Your task to perform on an android device: Open Chrome and go to settings Image 0: 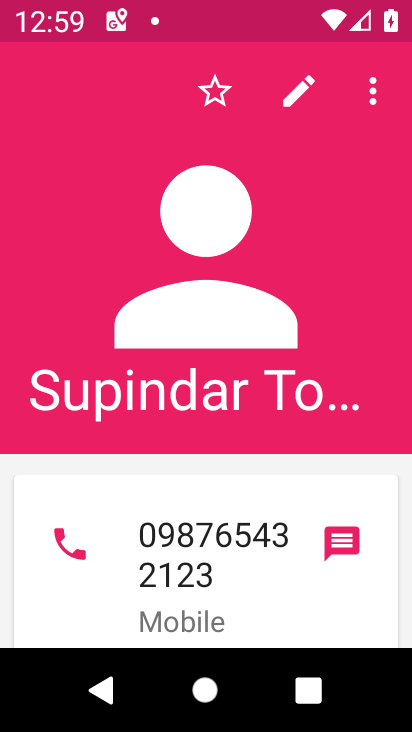
Step 0: press home button
Your task to perform on an android device: Open Chrome and go to settings Image 1: 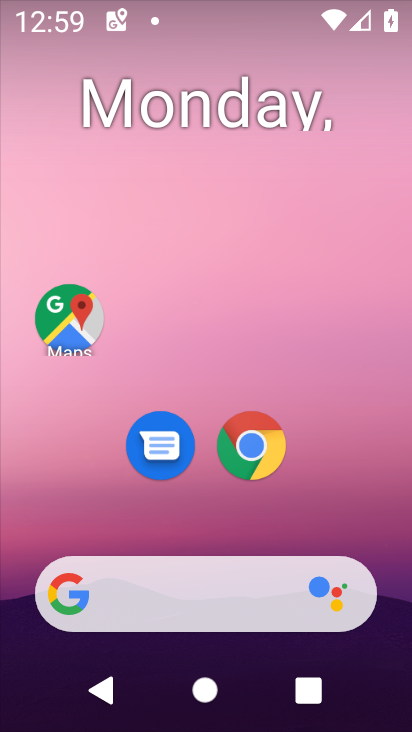
Step 1: click (250, 446)
Your task to perform on an android device: Open Chrome and go to settings Image 2: 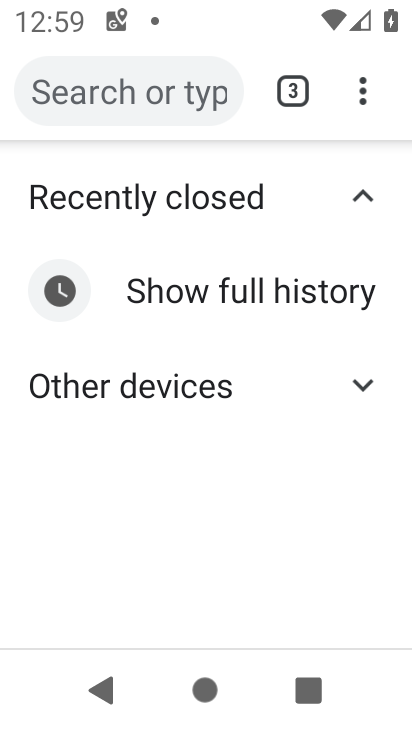
Step 2: click (364, 96)
Your task to perform on an android device: Open Chrome and go to settings Image 3: 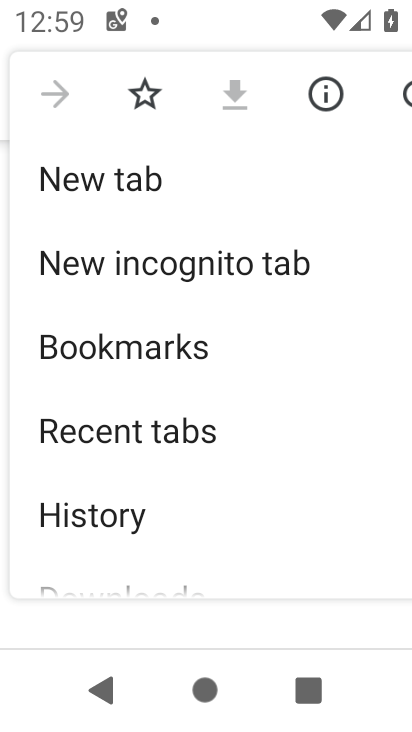
Step 3: drag from (147, 365) to (221, 247)
Your task to perform on an android device: Open Chrome and go to settings Image 4: 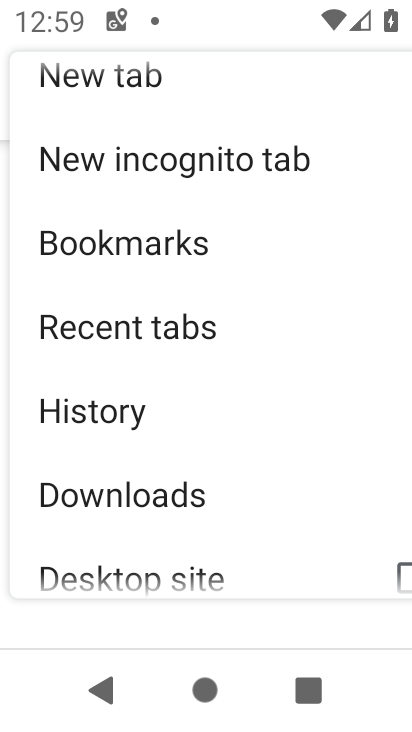
Step 4: drag from (140, 365) to (190, 295)
Your task to perform on an android device: Open Chrome and go to settings Image 5: 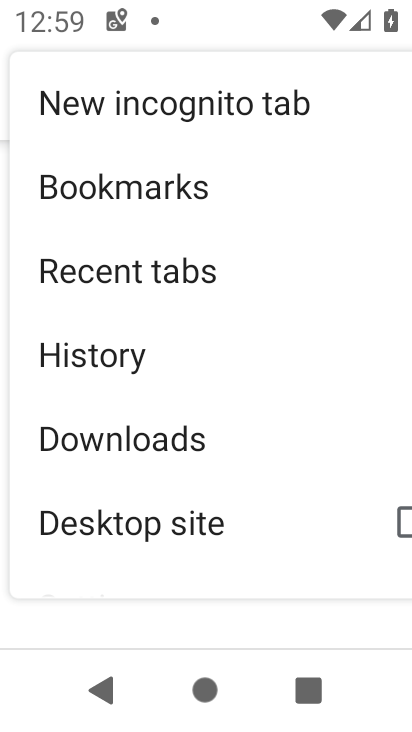
Step 5: drag from (115, 421) to (158, 340)
Your task to perform on an android device: Open Chrome and go to settings Image 6: 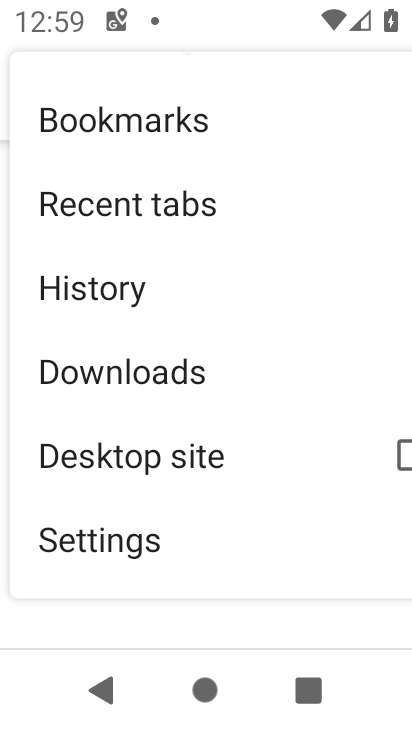
Step 6: drag from (122, 483) to (161, 409)
Your task to perform on an android device: Open Chrome and go to settings Image 7: 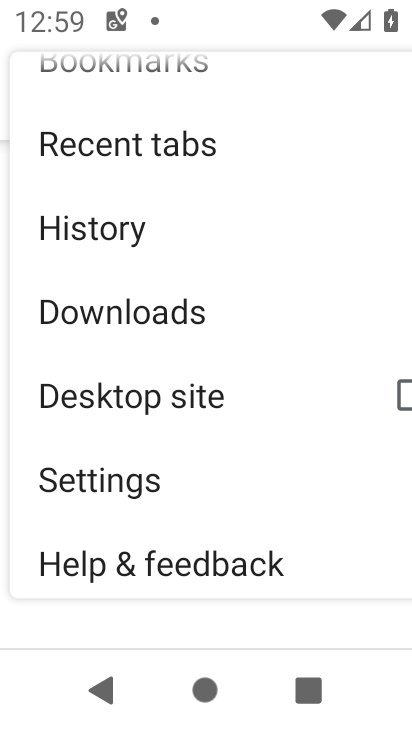
Step 7: click (153, 474)
Your task to perform on an android device: Open Chrome and go to settings Image 8: 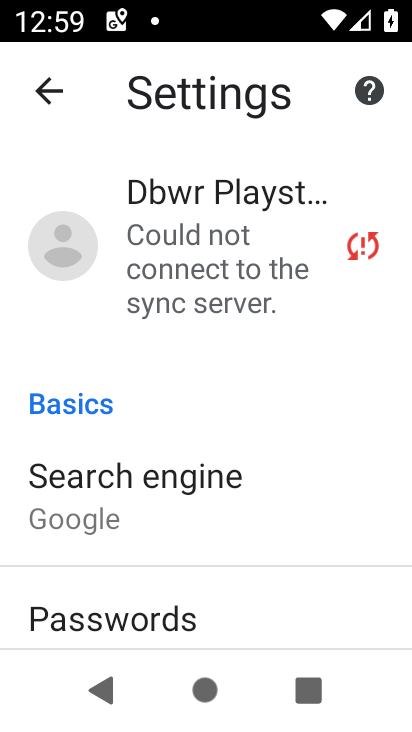
Step 8: task complete